Your task to perform on an android device: Set the phone to "Do not disturb". Image 0: 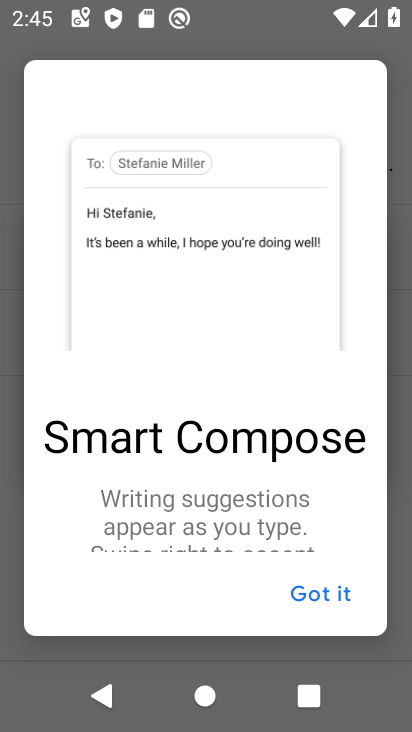
Step 0: press back button
Your task to perform on an android device: Set the phone to "Do not disturb". Image 1: 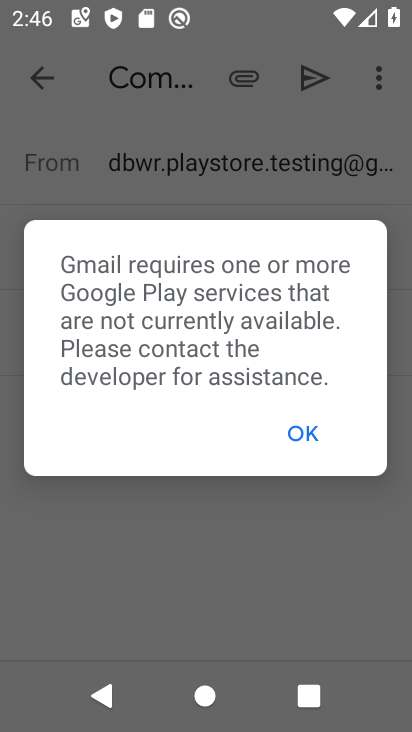
Step 1: press back button
Your task to perform on an android device: Set the phone to "Do not disturb". Image 2: 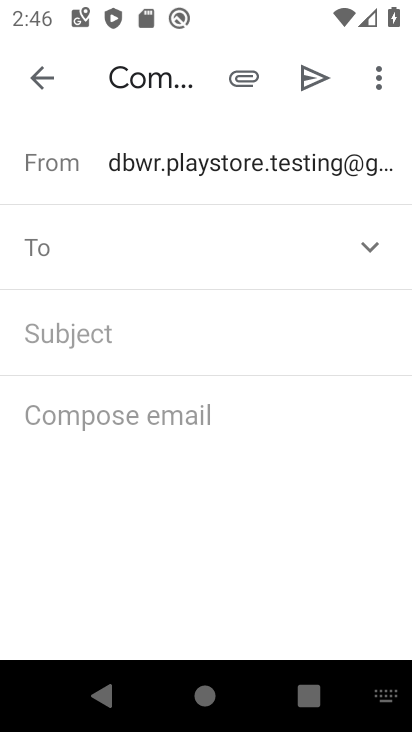
Step 2: press back button
Your task to perform on an android device: Set the phone to "Do not disturb". Image 3: 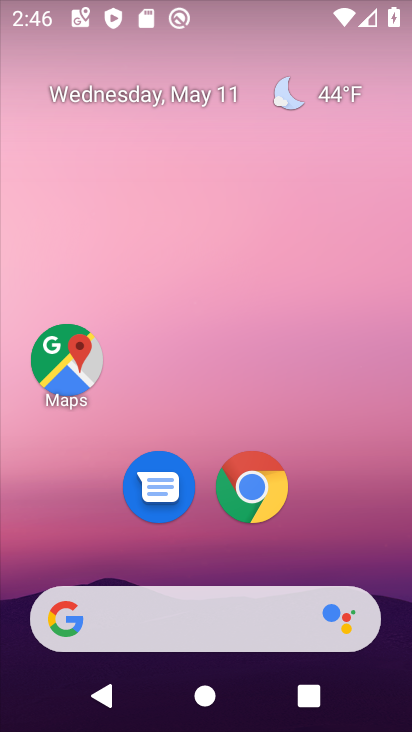
Step 3: press home button
Your task to perform on an android device: Set the phone to "Do not disturb". Image 4: 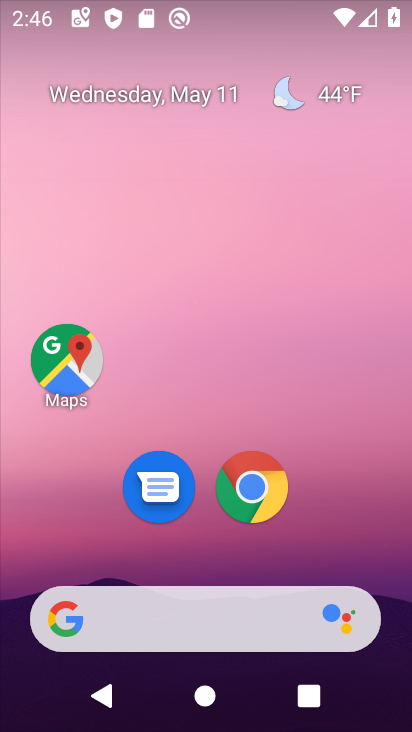
Step 4: drag from (191, 9) to (163, 619)
Your task to perform on an android device: Set the phone to "Do not disturb". Image 5: 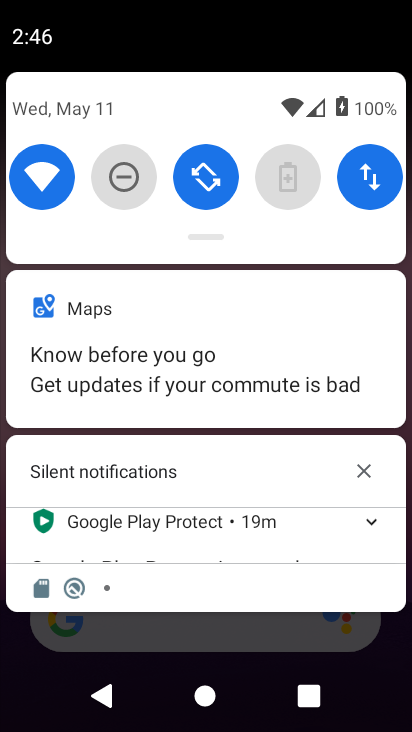
Step 5: click (124, 178)
Your task to perform on an android device: Set the phone to "Do not disturb". Image 6: 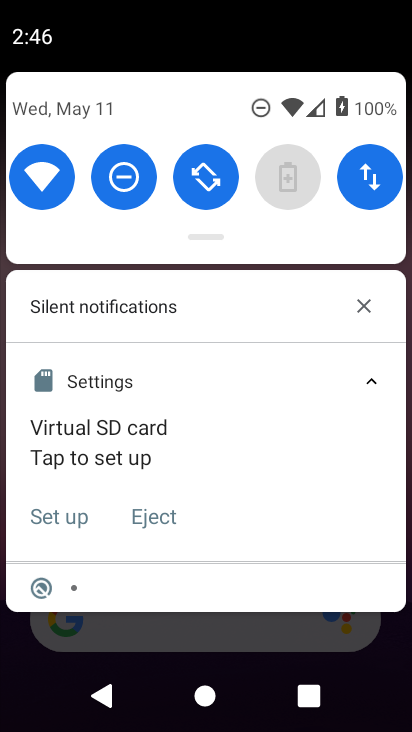
Step 6: task complete